Your task to perform on an android device: set the stopwatch Image 0: 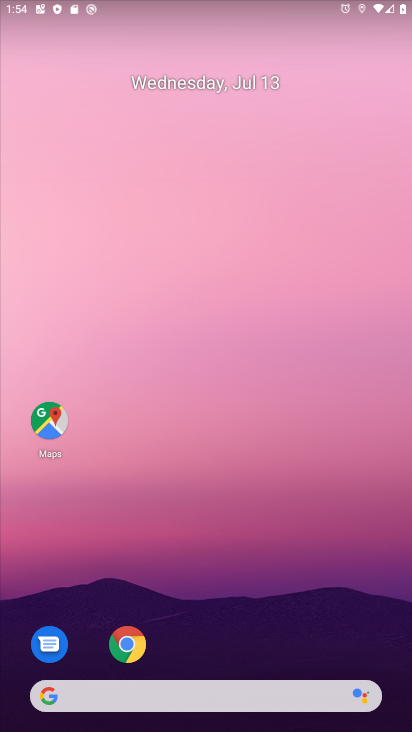
Step 0: press home button
Your task to perform on an android device: set the stopwatch Image 1: 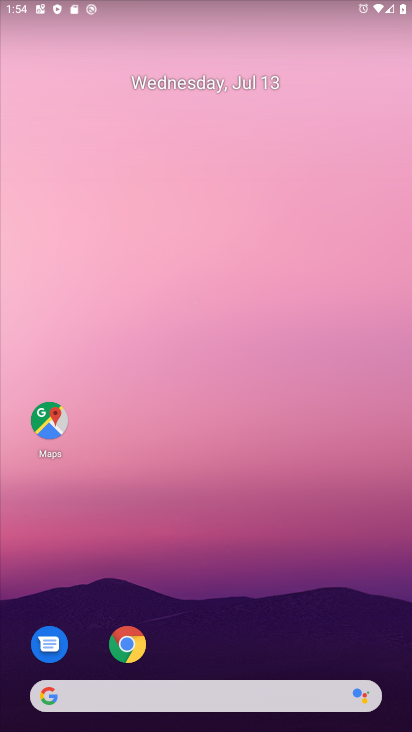
Step 1: drag from (215, 659) to (207, 132)
Your task to perform on an android device: set the stopwatch Image 2: 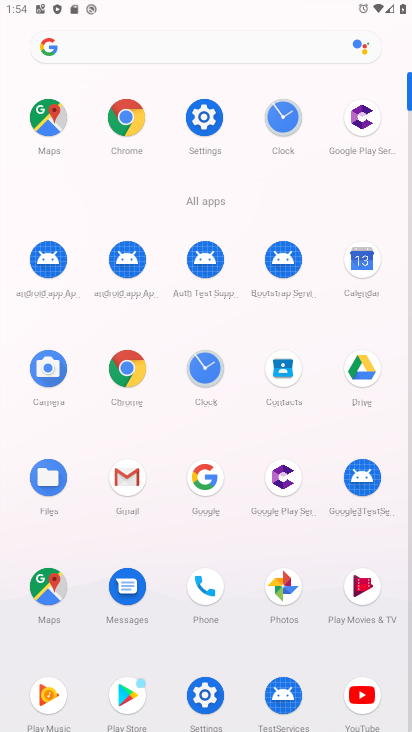
Step 2: click (211, 370)
Your task to perform on an android device: set the stopwatch Image 3: 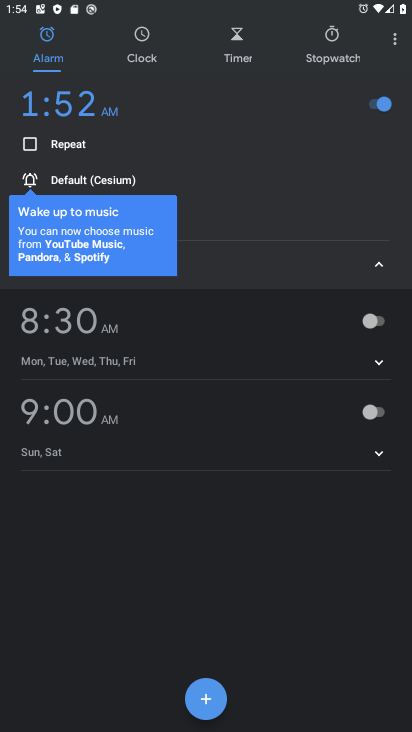
Step 3: click (311, 44)
Your task to perform on an android device: set the stopwatch Image 4: 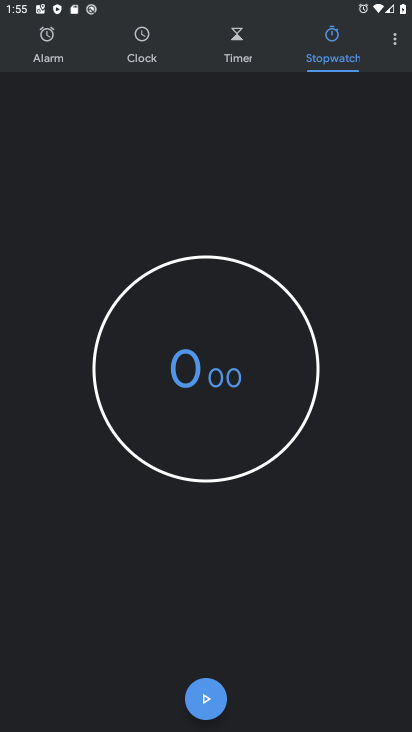
Step 4: task complete